Your task to perform on an android device: Go to eBay Image 0: 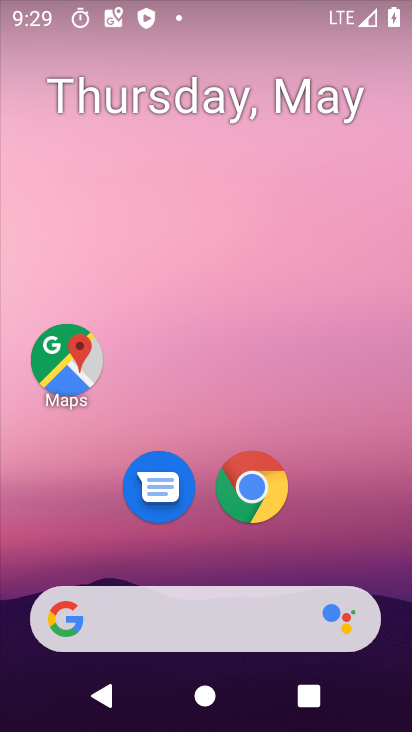
Step 0: drag from (183, 546) to (245, 122)
Your task to perform on an android device: Go to eBay Image 1: 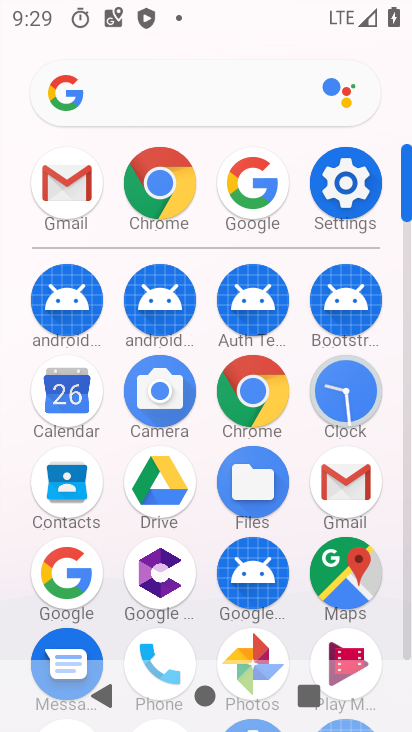
Step 1: click (172, 229)
Your task to perform on an android device: Go to eBay Image 2: 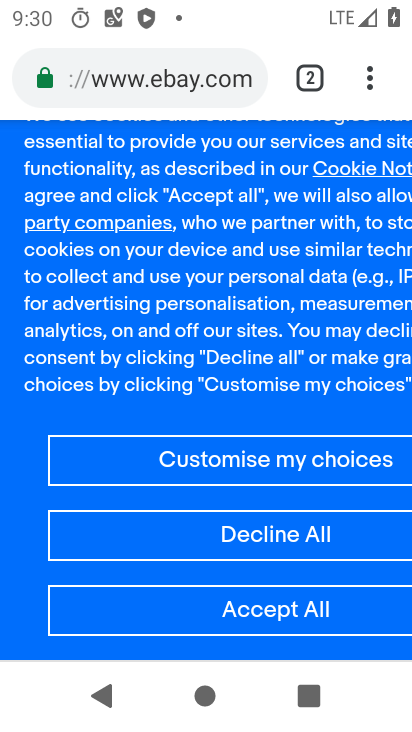
Step 2: task complete